Your task to perform on an android device: Check the weather Image 0: 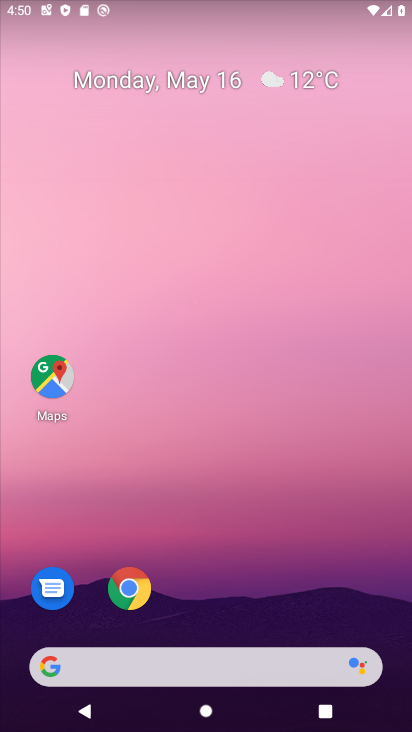
Step 0: click (283, 71)
Your task to perform on an android device: Check the weather Image 1: 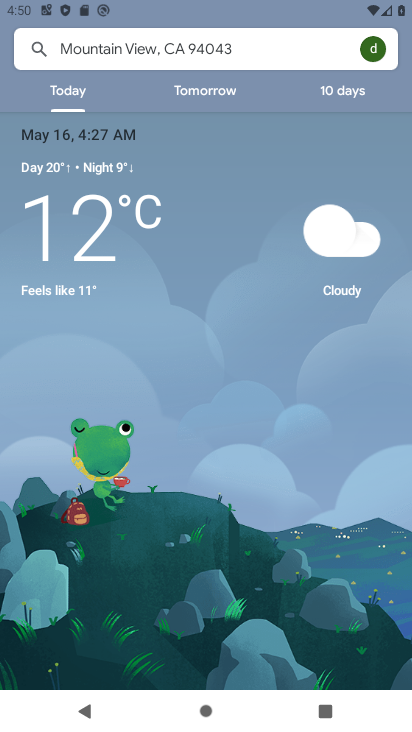
Step 1: task complete